Your task to perform on an android device: install app "Truecaller" Image 0: 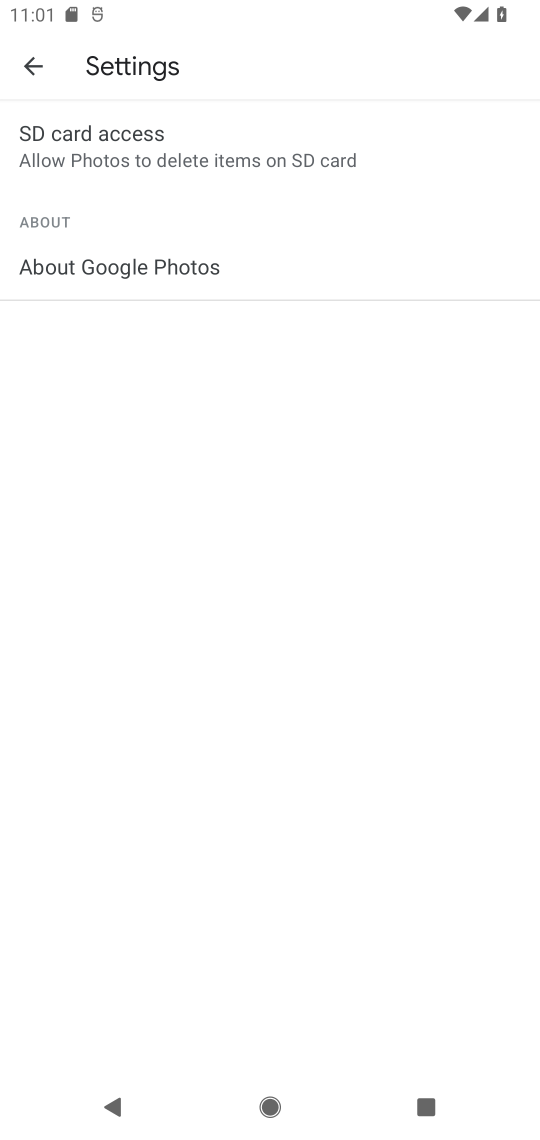
Step 0: press home button
Your task to perform on an android device: install app "Truecaller" Image 1: 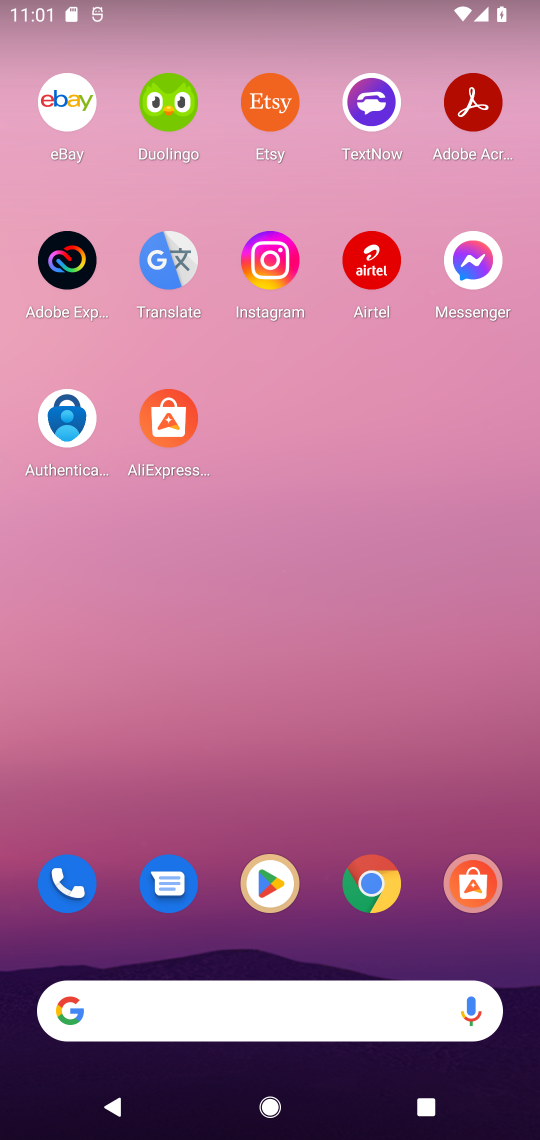
Step 1: click (263, 882)
Your task to perform on an android device: install app "Truecaller" Image 2: 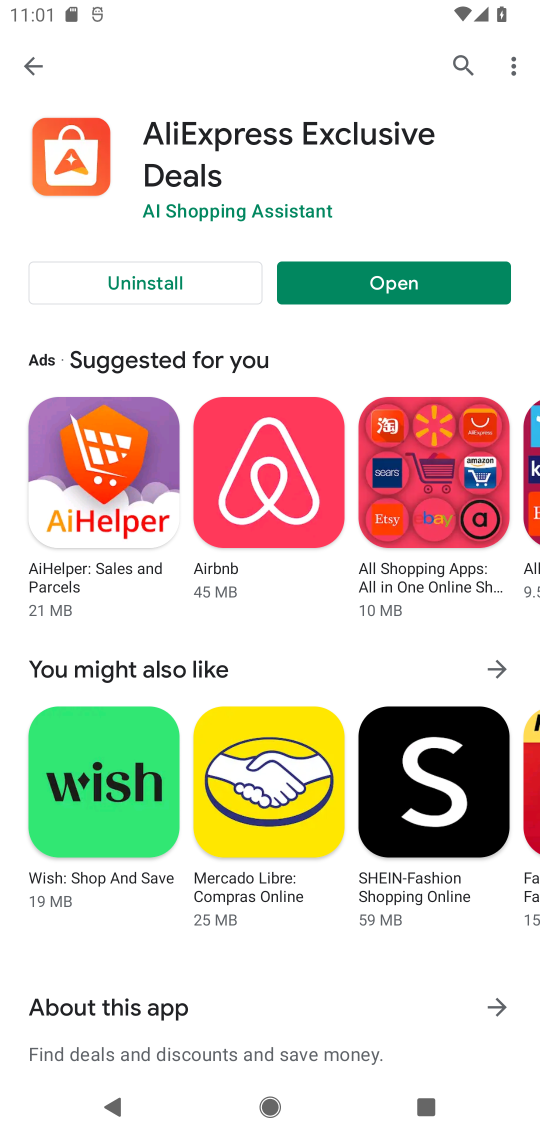
Step 2: click (463, 56)
Your task to perform on an android device: install app "Truecaller" Image 3: 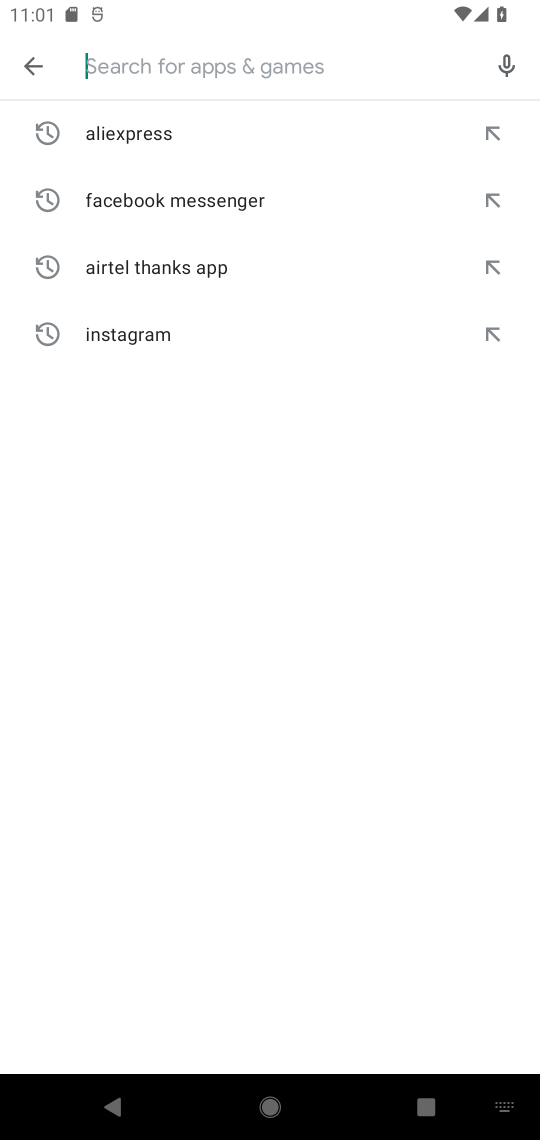
Step 3: type "Truecaller"
Your task to perform on an android device: install app "Truecaller" Image 4: 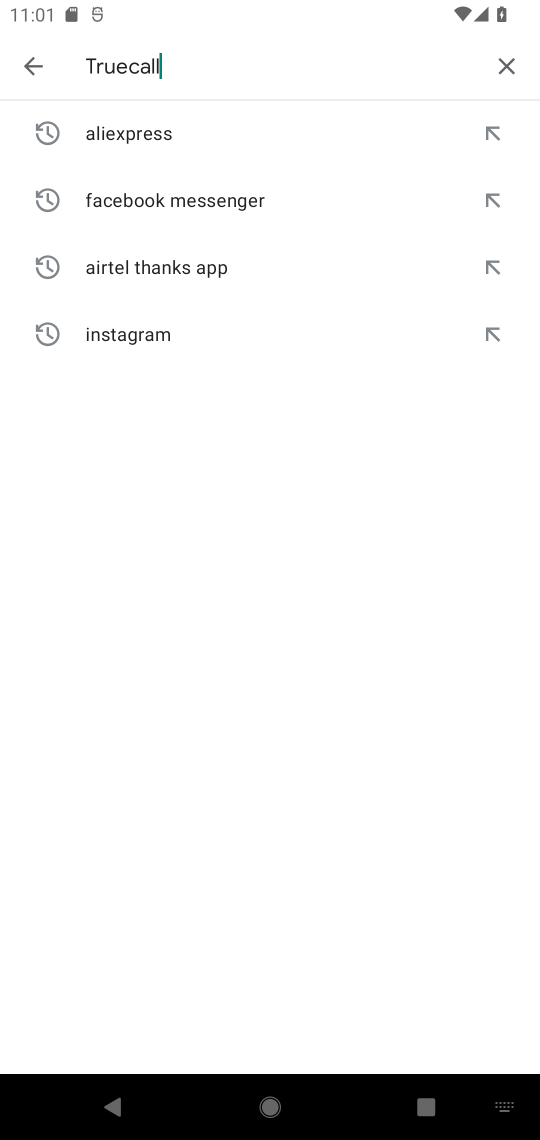
Step 4: type ""
Your task to perform on an android device: install app "Truecaller" Image 5: 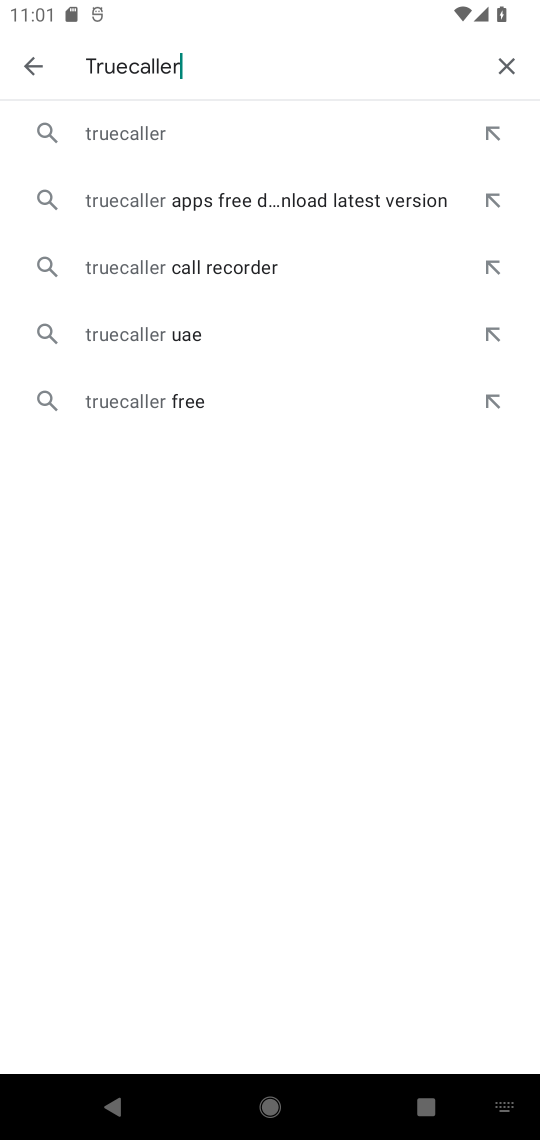
Step 5: click (131, 126)
Your task to perform on an android device: install app "Truecaller" Image 6: 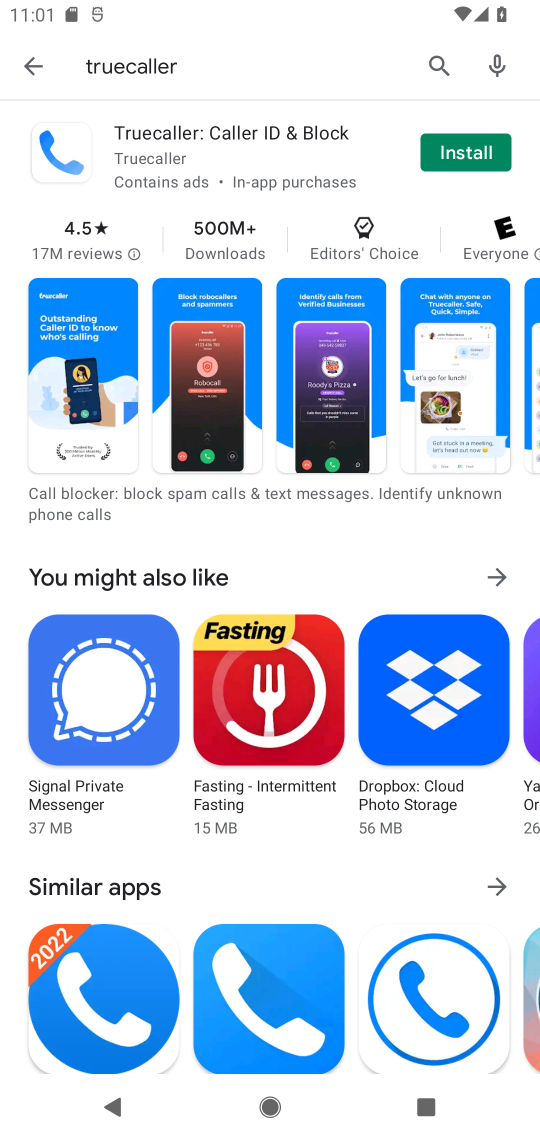
Step 6: click (475, 151)
Your task to perform on an android device: install app "Truecaller" Image 7: 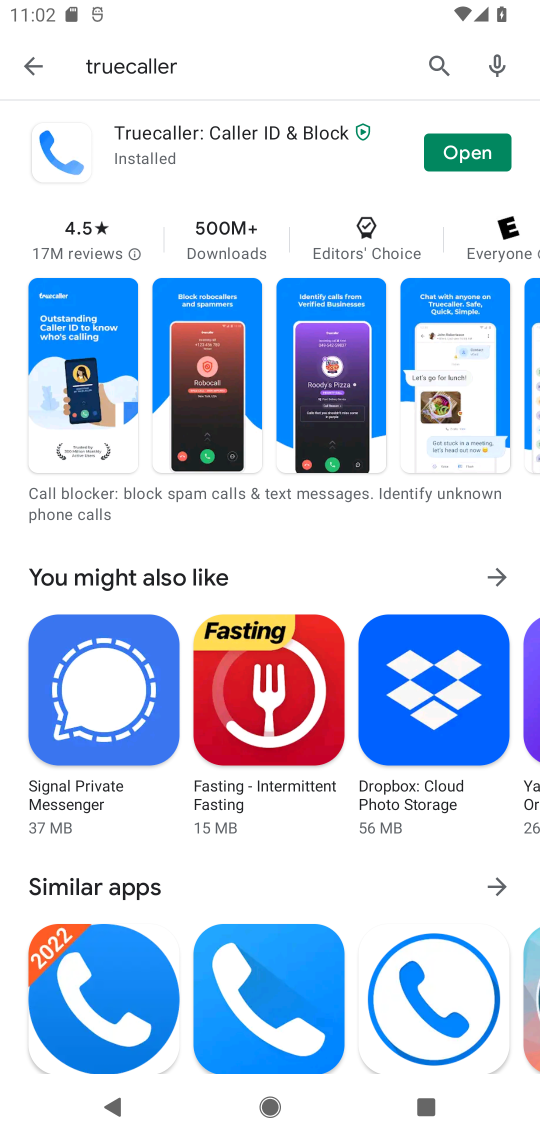
Step 7: task complete